Your task to perform on an android device: Search for the new Nike Air Jordan 33 on Nike.com Image 0: 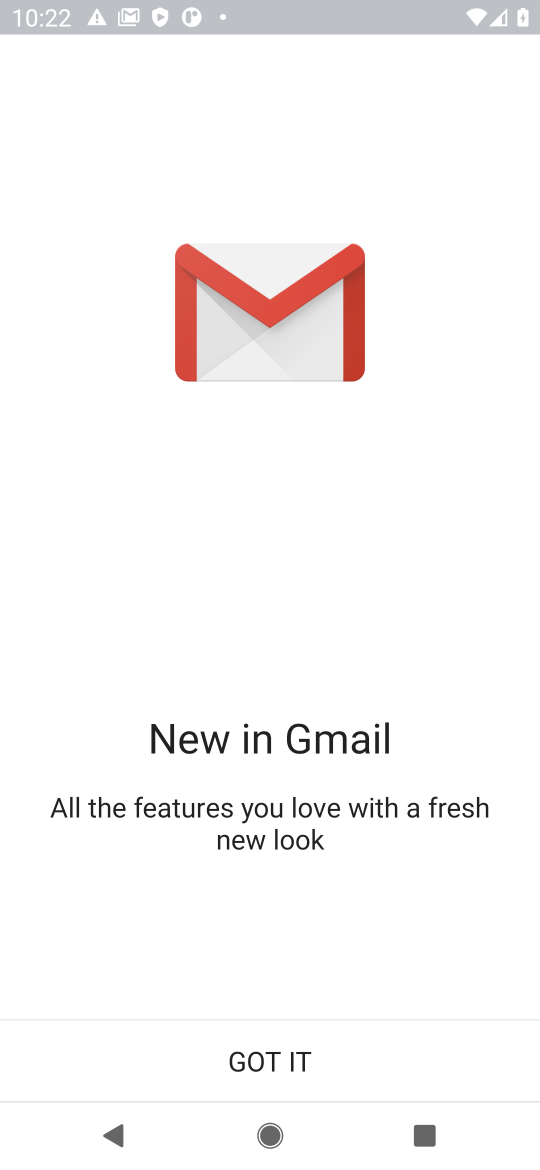
Step 0: press home button
Your task to perform on an android device: Search for the new Nike Air Jordan 33 on Nike.com Image 1: 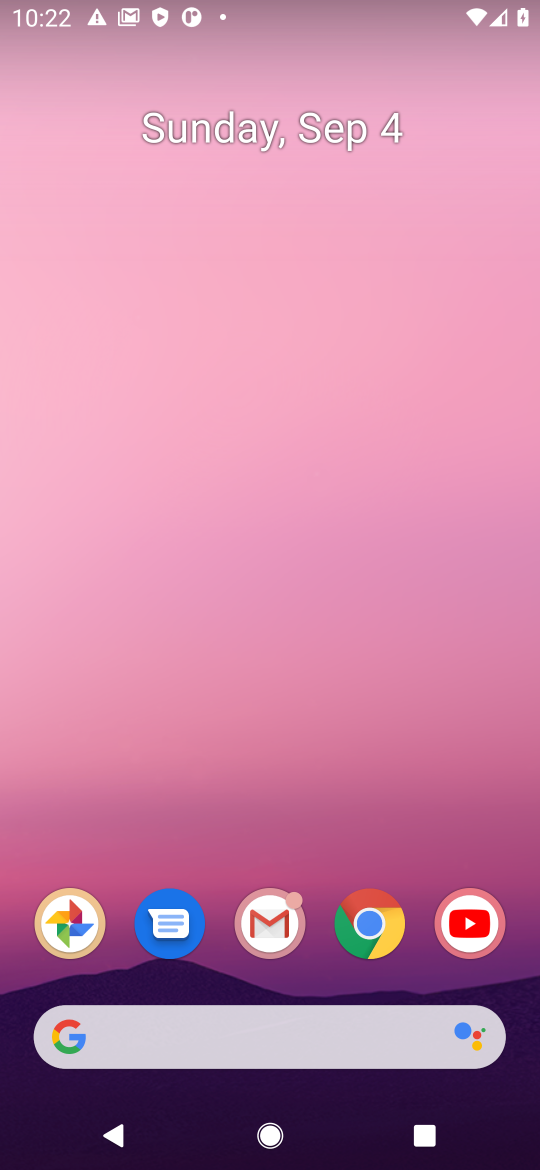
Step 1: click (378, 1039)
Your task to perform on an android device: Search for the new Nike Air Jordan 33 on Nike.com Image 2: 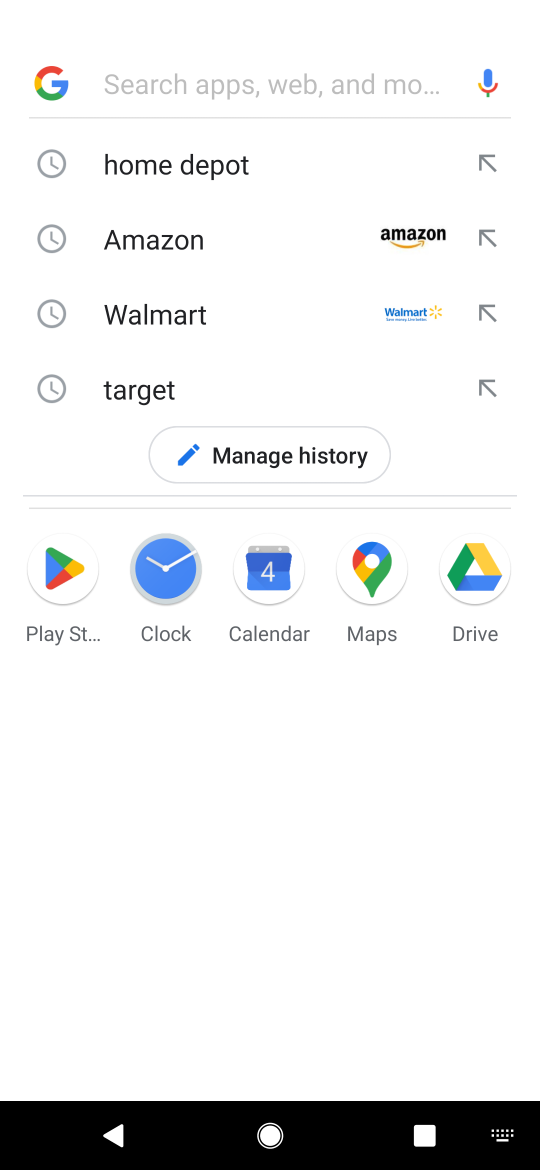
Step 2: press enter
Your task to perform on an android device: Search for the new Nike Air Jordan 33 on Nike.com Image 3: 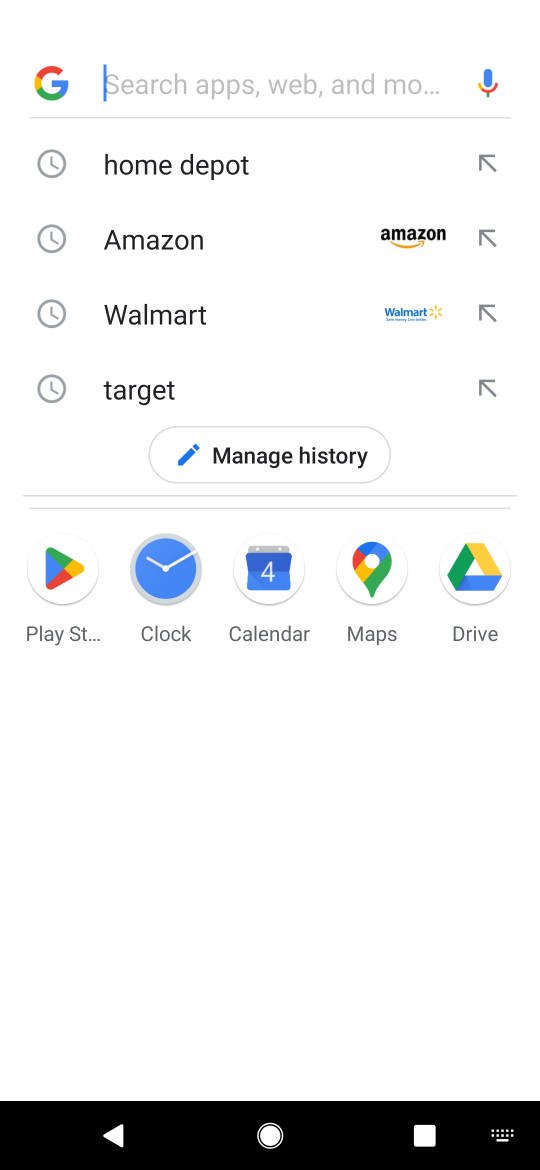
Step 3: type "nike.com"
Your task to perform on an android device: Search for the new Nike Air Jordan 33 on Nike.com Image 4: 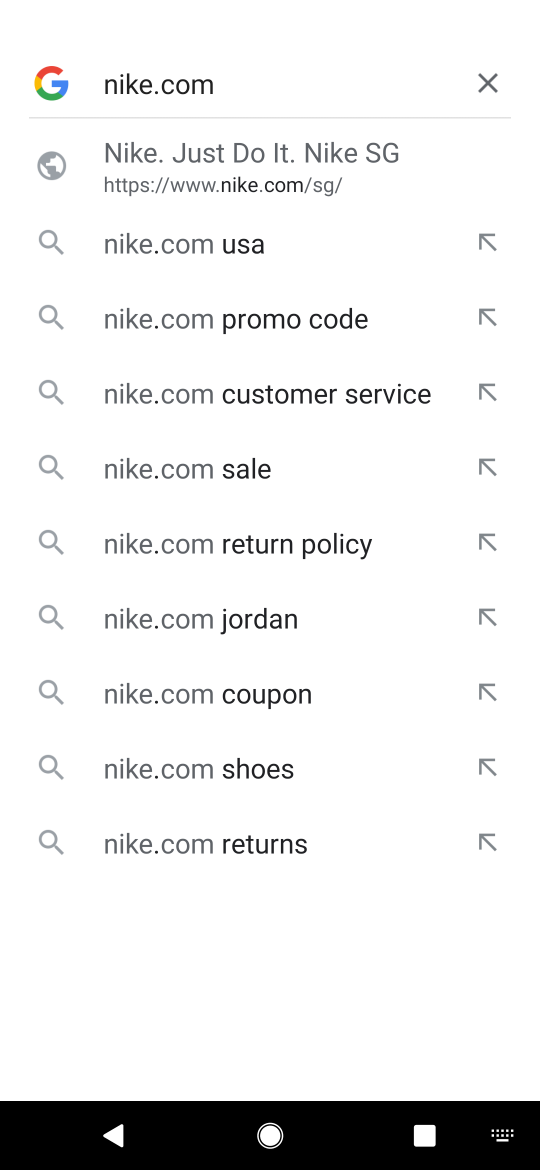
Step 4: click (229, 175)
Your task to perform on an android device: Search for the new Nike Air Jordan 33 on Nike.com Image 5: 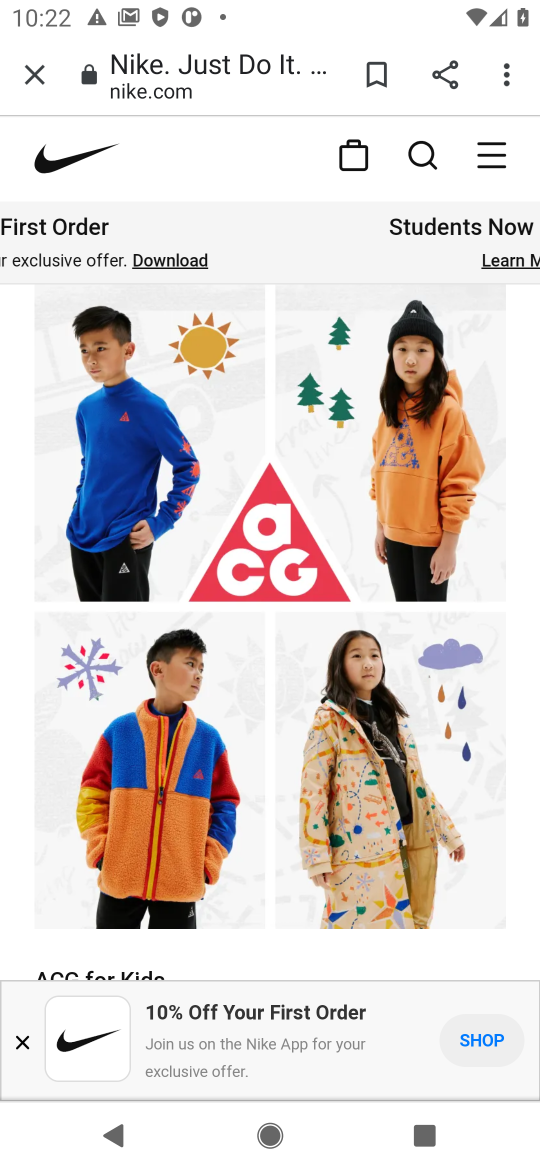
Step 5: click (426, 163)
Your task to perform on an android device: Search for the new Nike Air Jordan 33 on Nike.com Image 6: 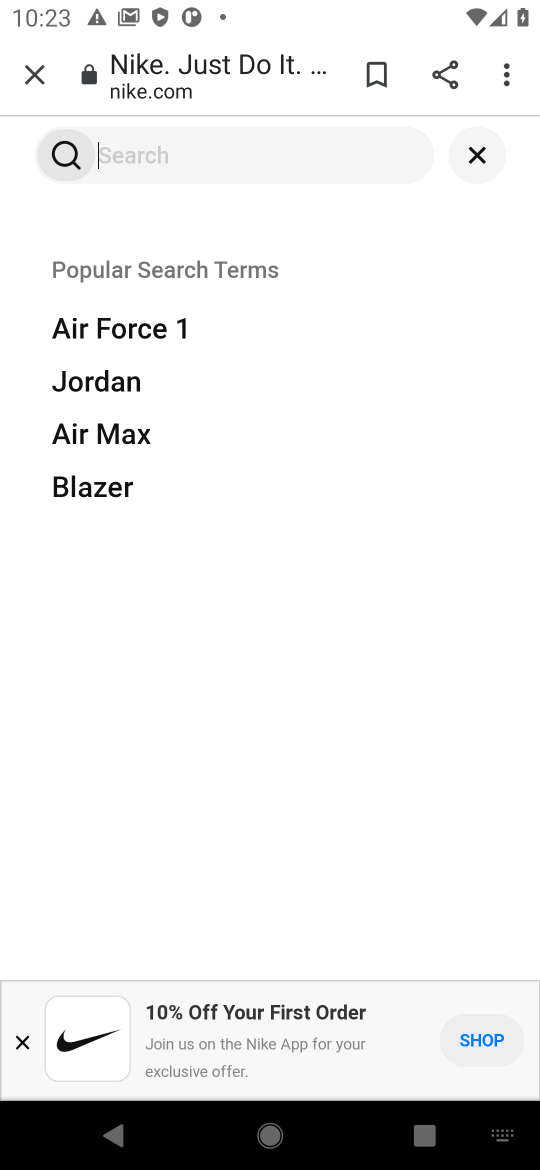
Step 6: type " new Nike Air Jordan 33 "
Your task to perform on an android device: Search for the new Nike Air Jordan 33 on Nike.com Image 7: 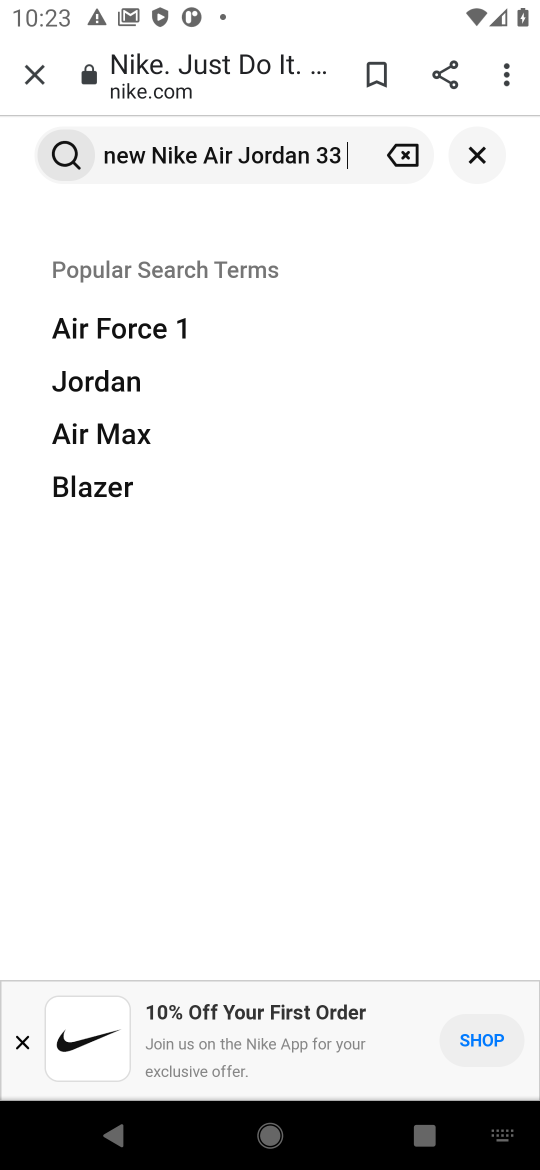
Step 7: press enter
Your task to perform on an android device: Search for the new Nike Air Jordan 33 on Nike.com Image 8: 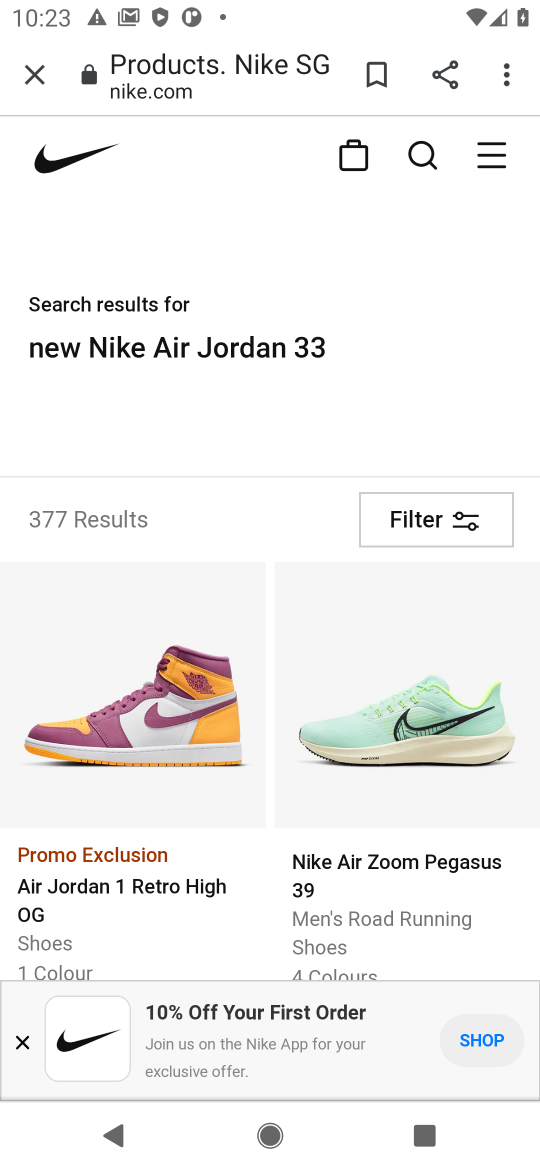
Step 8: task complete